Your task to perform on an android device: What's on the menu at Pizza Hut? Image 0: 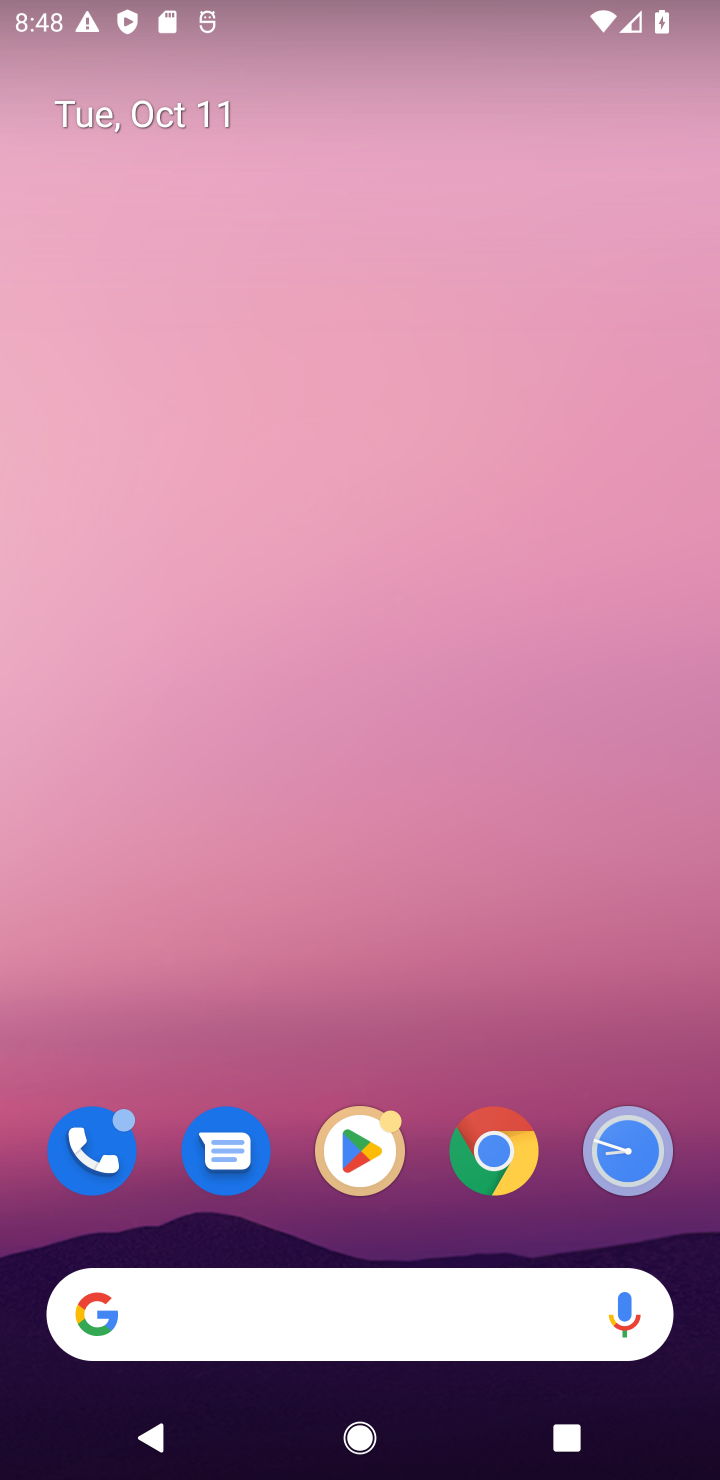
Step 0: click (513, 1106)
Your task to perform on an android device: What's on the menu at Pizza Hut? Image 1: 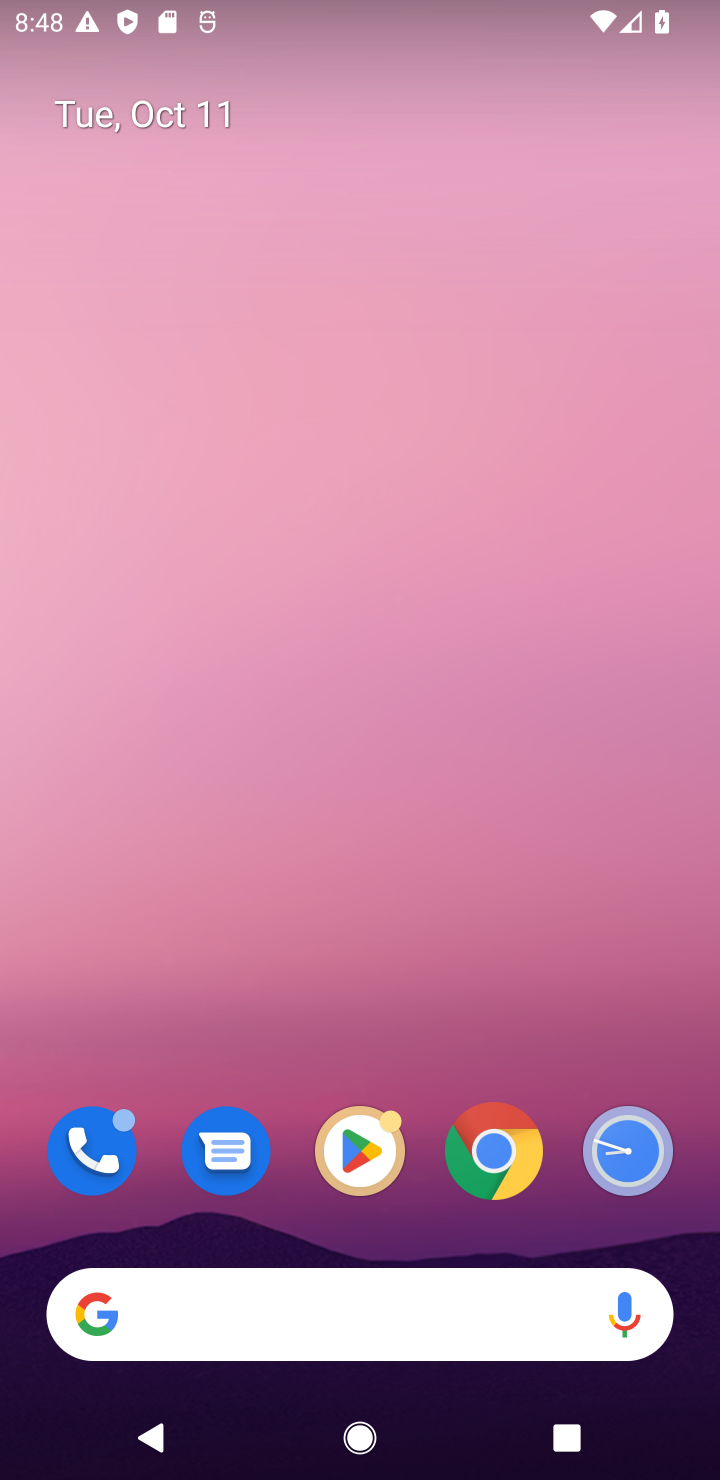
Step 1: click (488, 1150)
Your task to perform on an android device: What's on the menu at Pizza Hut? Image 2: 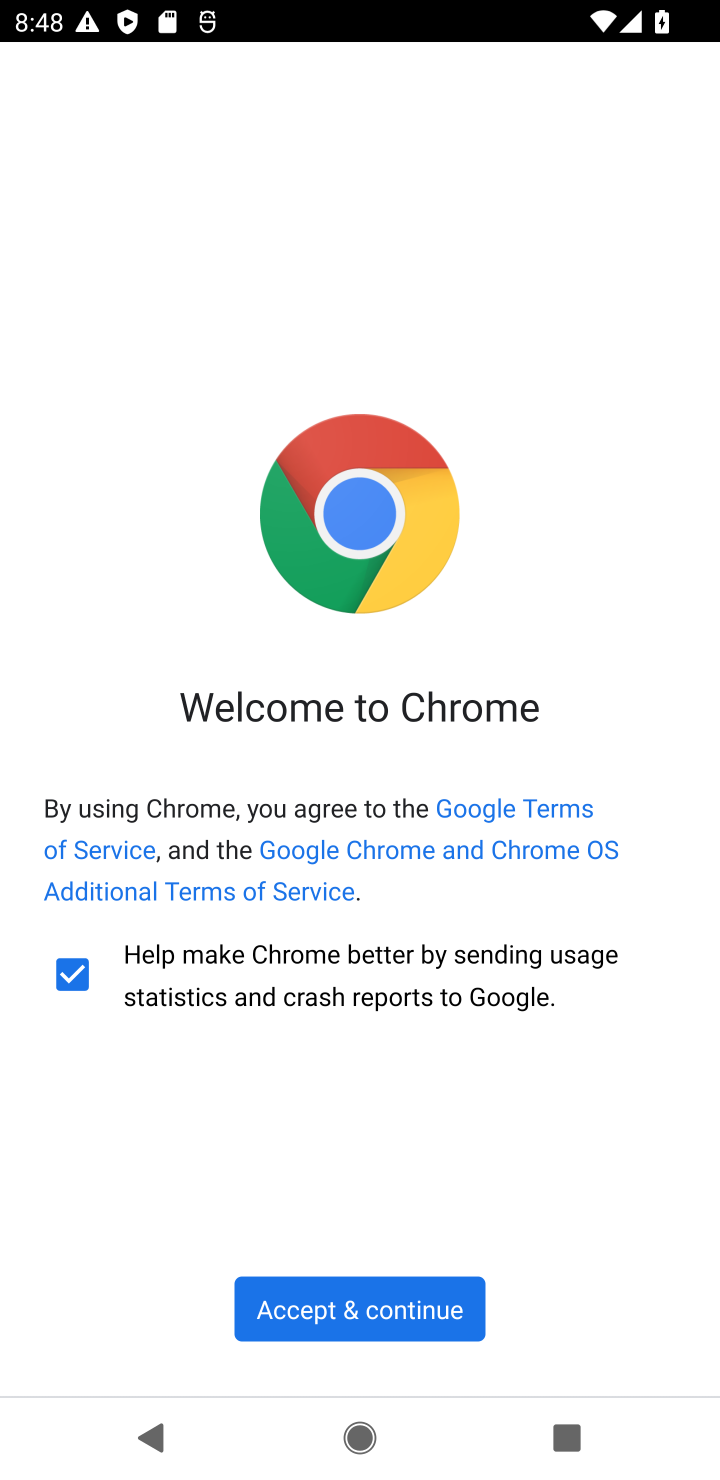
Step 2: click (414, 1334)
Your task to perform on an android device: What's on the menu at Pizza Hut? Image 3: 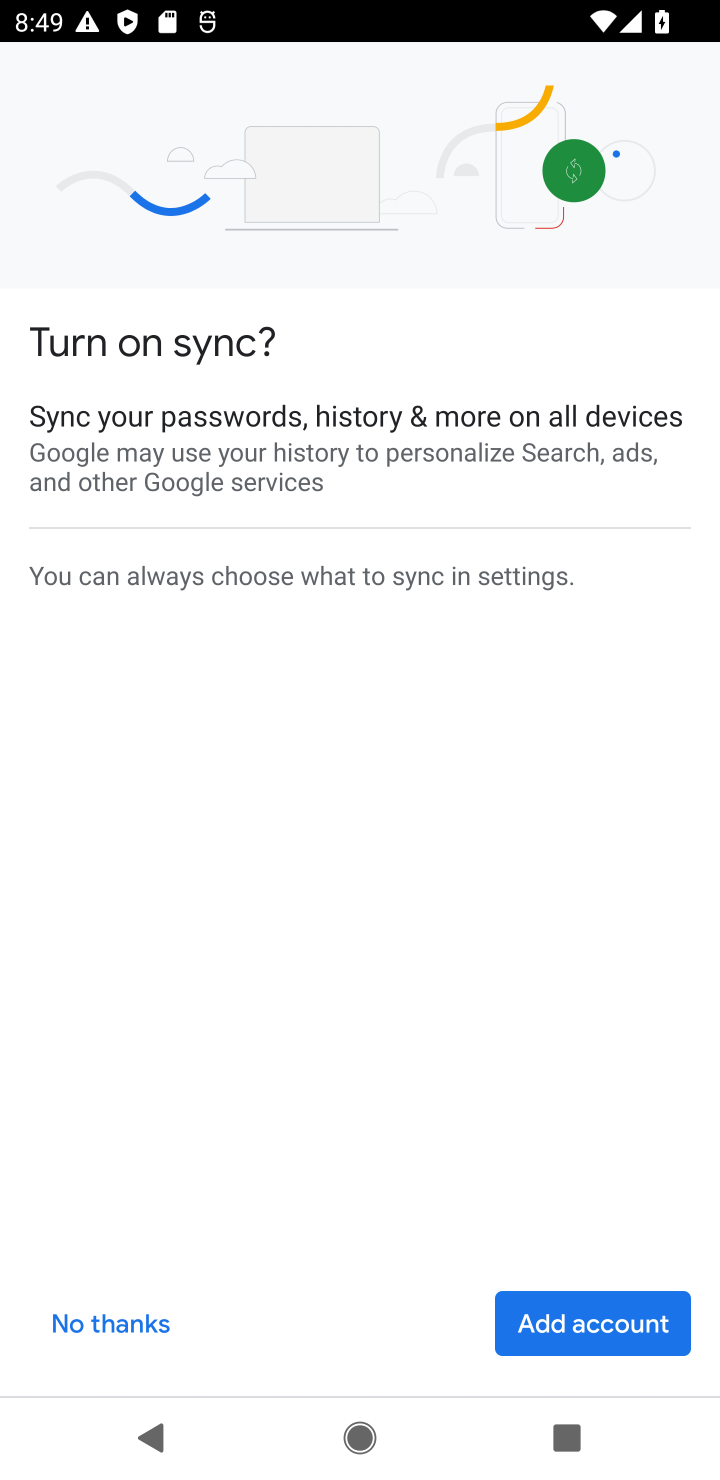
Step 3: click (140, 1329)
Your task to perform on an android device: What's on the menu at Pizza Hut? Image 4: 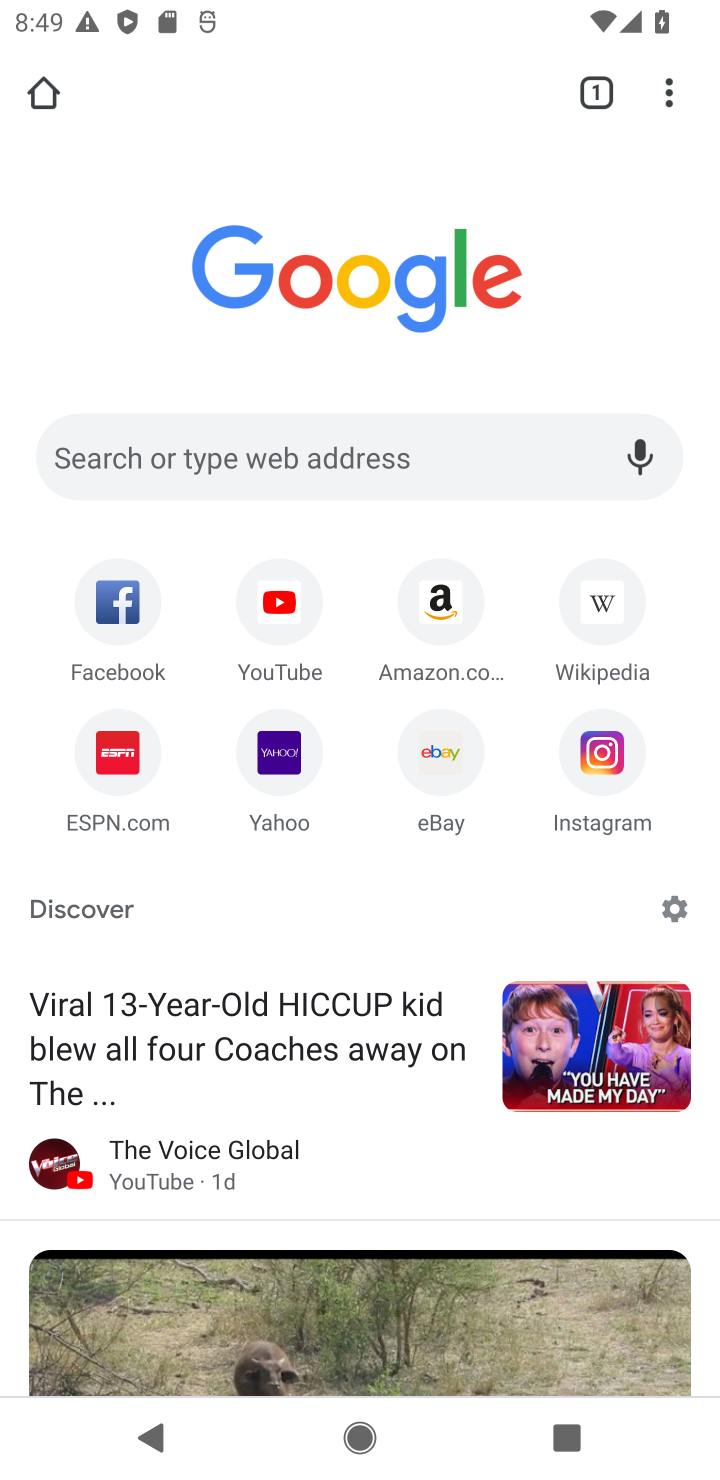
Step 4: click (391, 467)
Your task to perform on an android device: What's on the menu at Pizza Hut? Image 5: 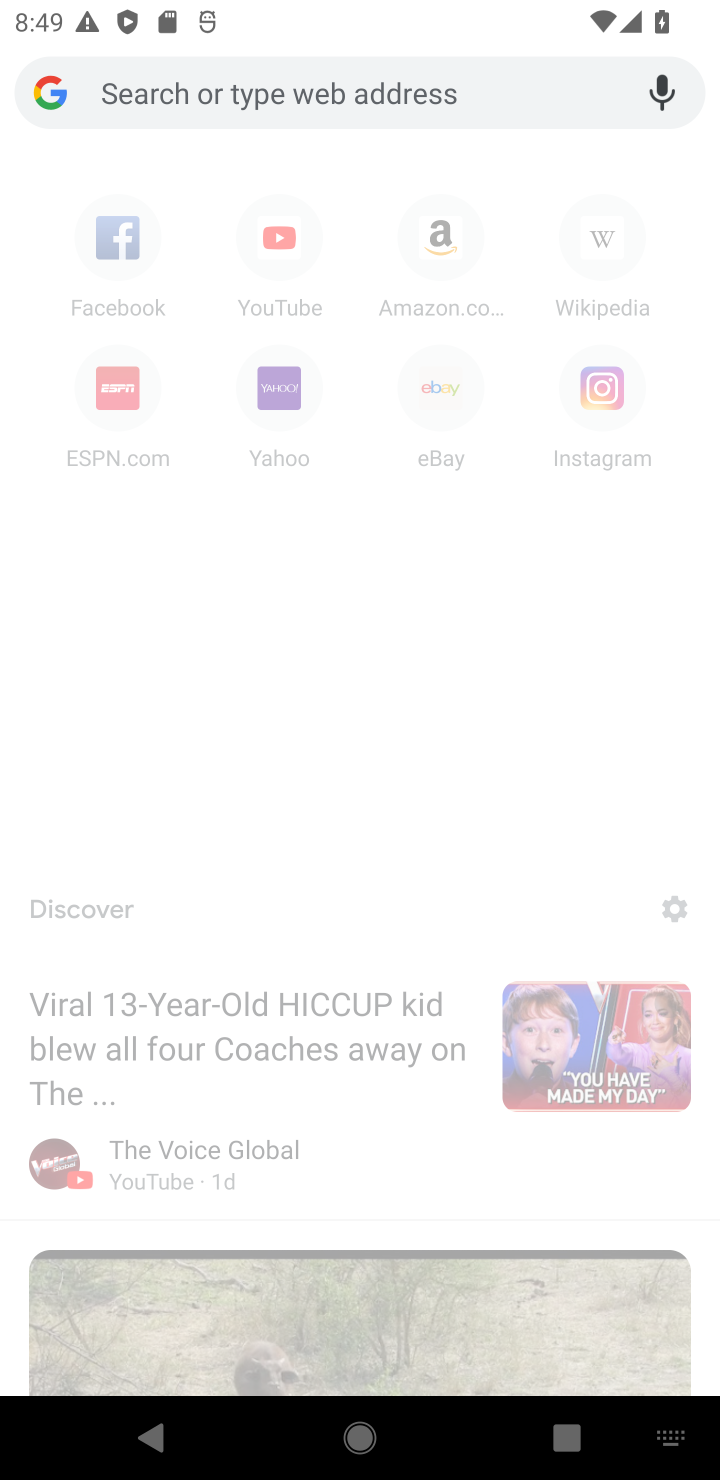
Step 5: type "pizza hut menu"
Your task to perform on an android device: What's on the menu at Pizza Hut? Image 6: 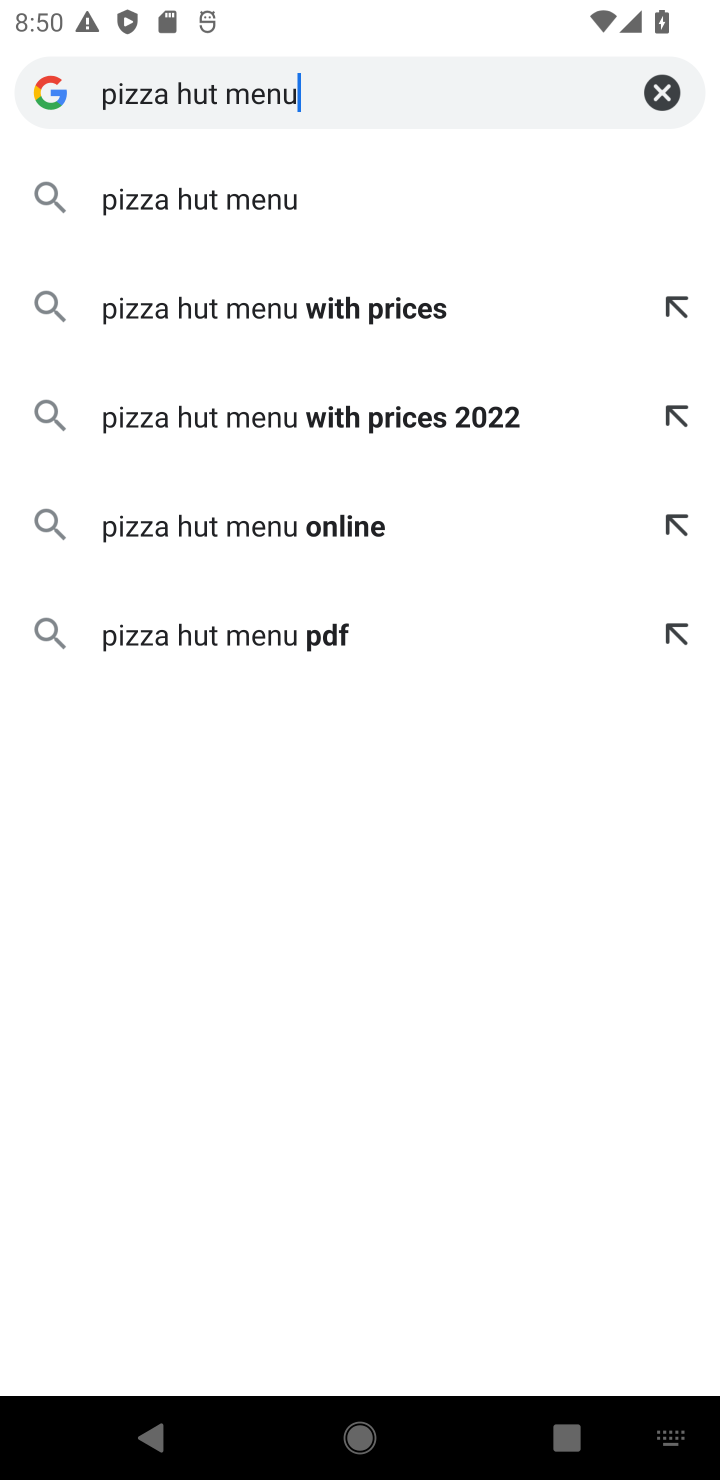
Step 6: click (234, 208)
Your task to perform on an android device: What's on the menu at Pizza Hut? Image 7: 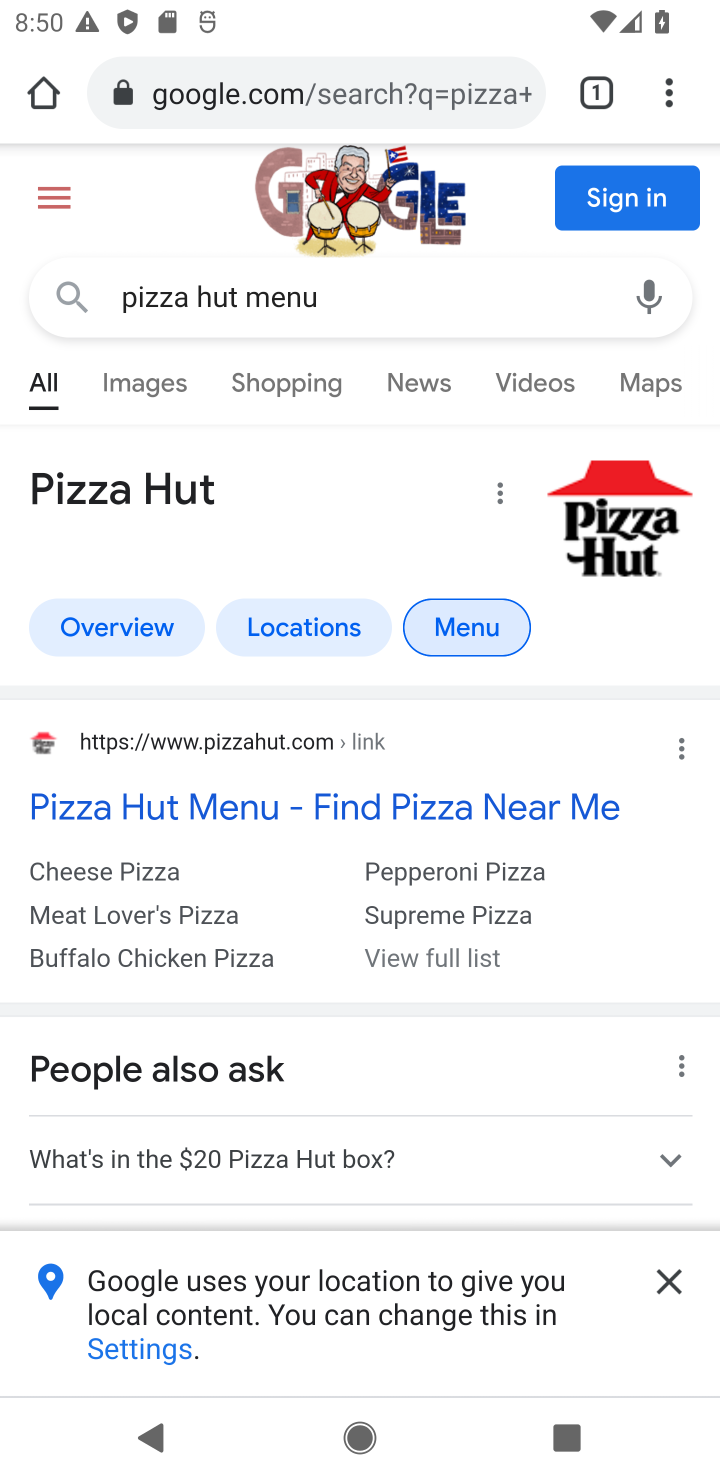
Step 7: drag from (557, 1015) to (511, 470)
Your task to perform on an android device: What's on the menu at Pizza Hut? Image 8: 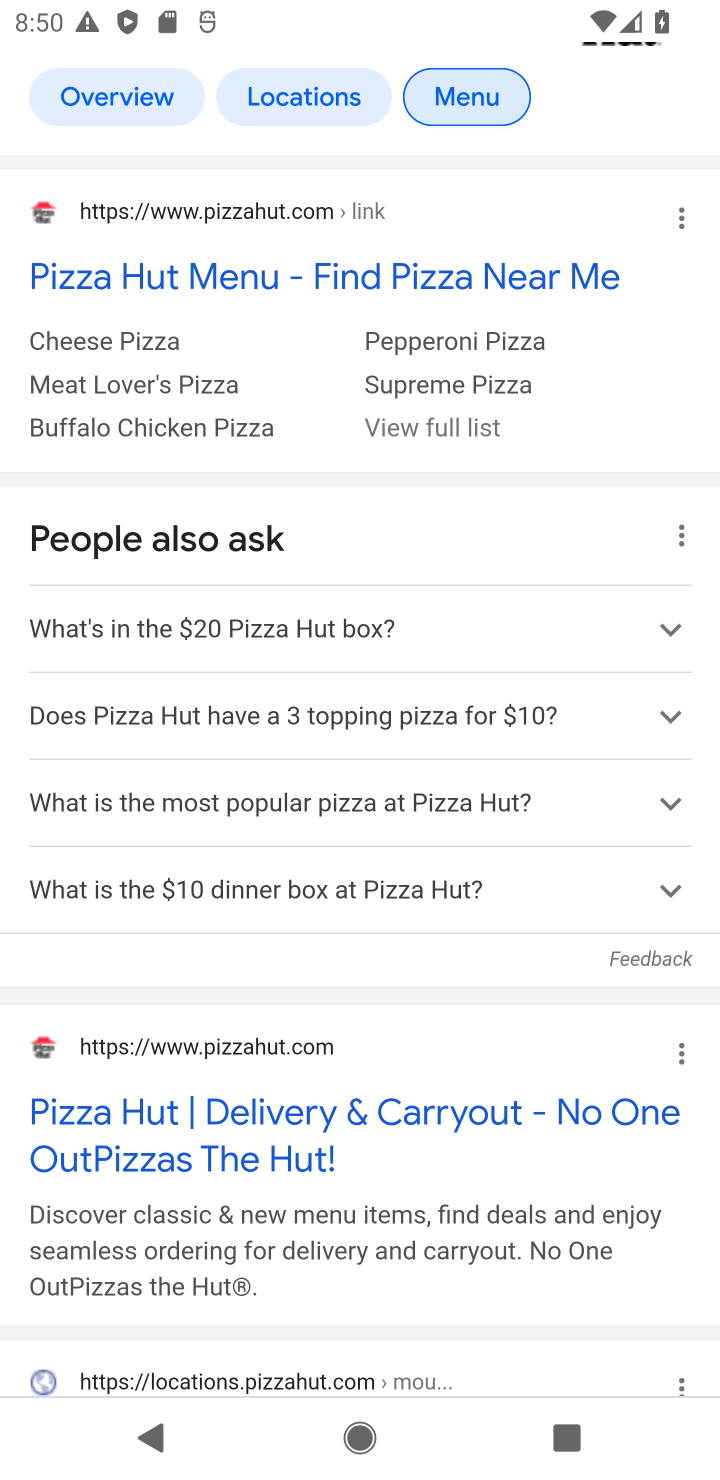
Step 8: drag from (438, 995) to (398, 478)
Your task to perform on an android device: What's on the menu at Pizza Hut? Image 9: 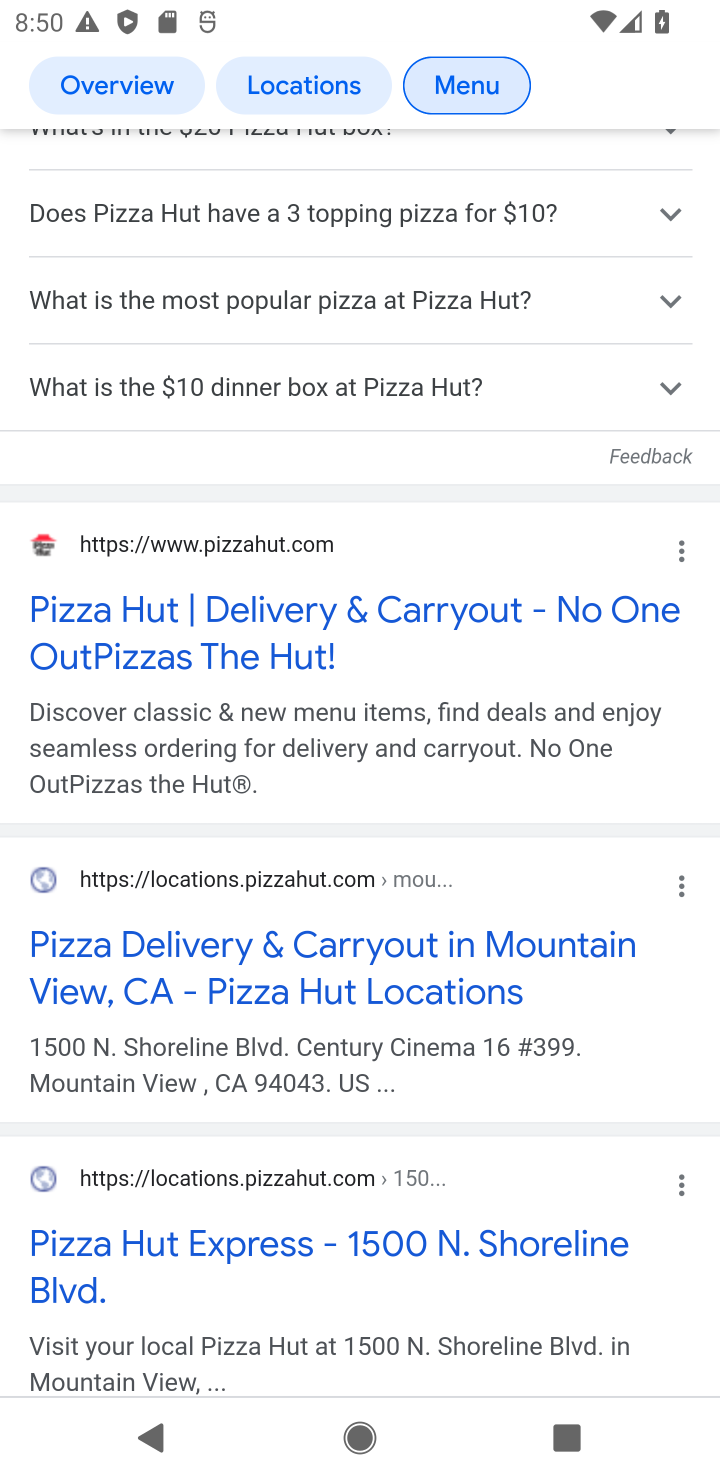
Step 9: drag from (627, 1128) to (528, 613)
Your task to perform on an android device: What's on the menu at Pizza Hut? Image 10: 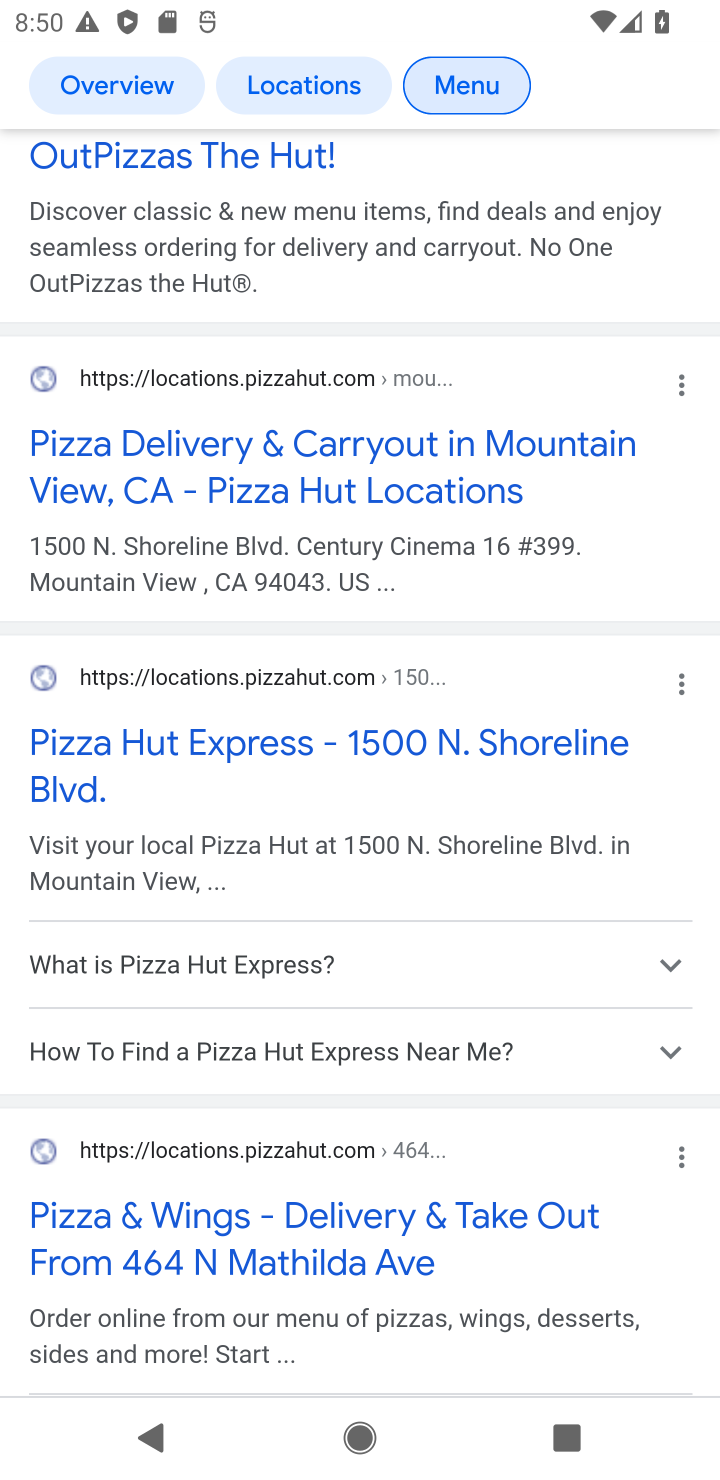
Step 10: drag from (489, 1105) to (515, 1025)
Your task to perform on an android device: What's on the menu at Pizza Hut? Image 11: 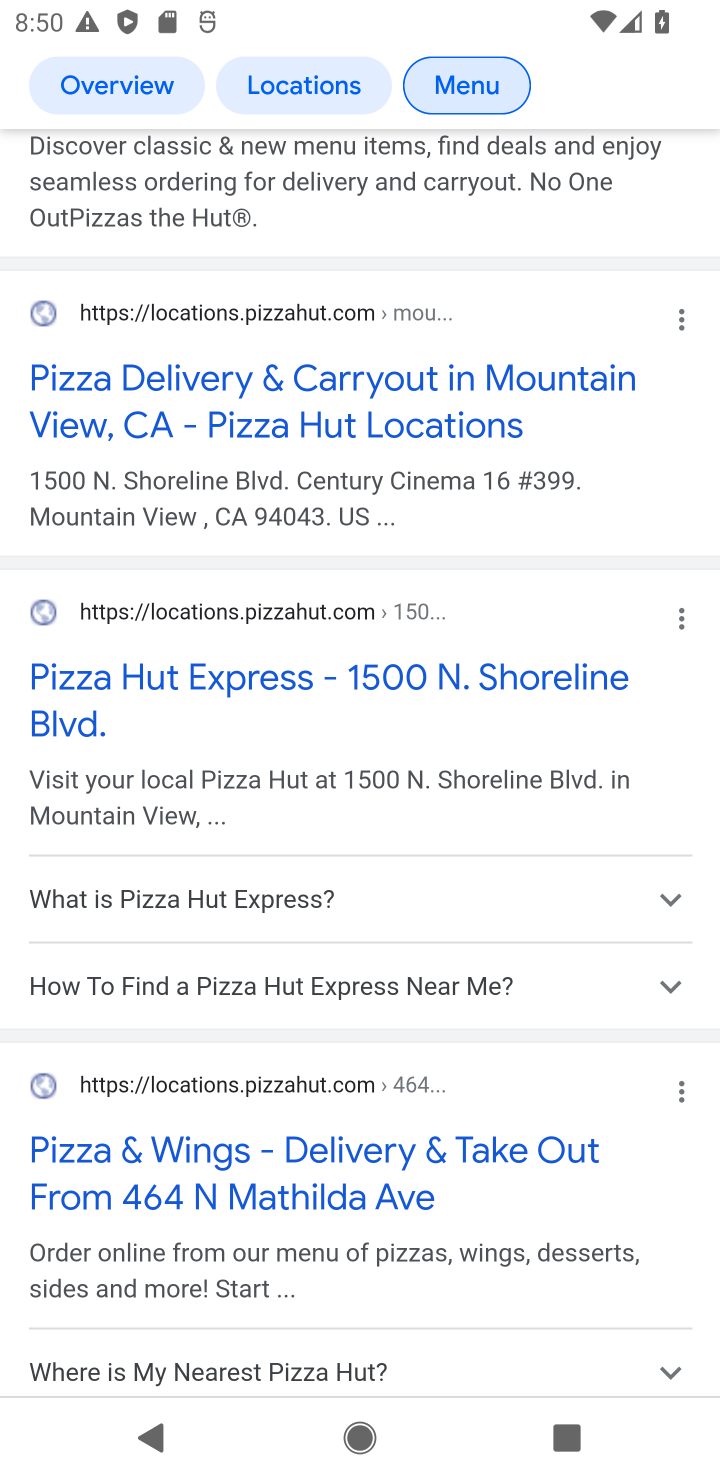
Step 11: drag from (485, 563) to (415, 1266)
Your task to perform on an android device: What's on the menu at Pizza Hut? Image 12: 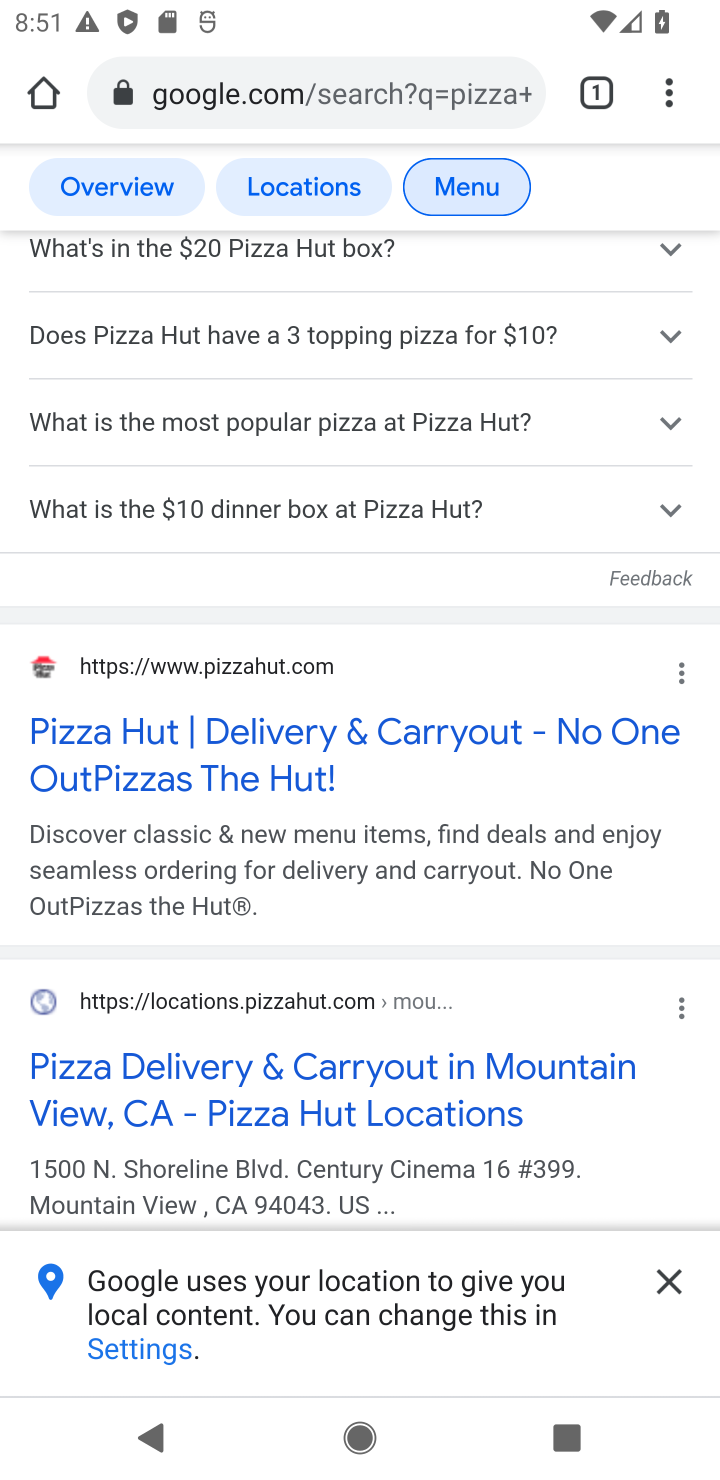
Step 12: drag from (503, 620) to (482, 1190)
Your task to perform on an android device: What's on the menu at Pizza Hut? Image 13: 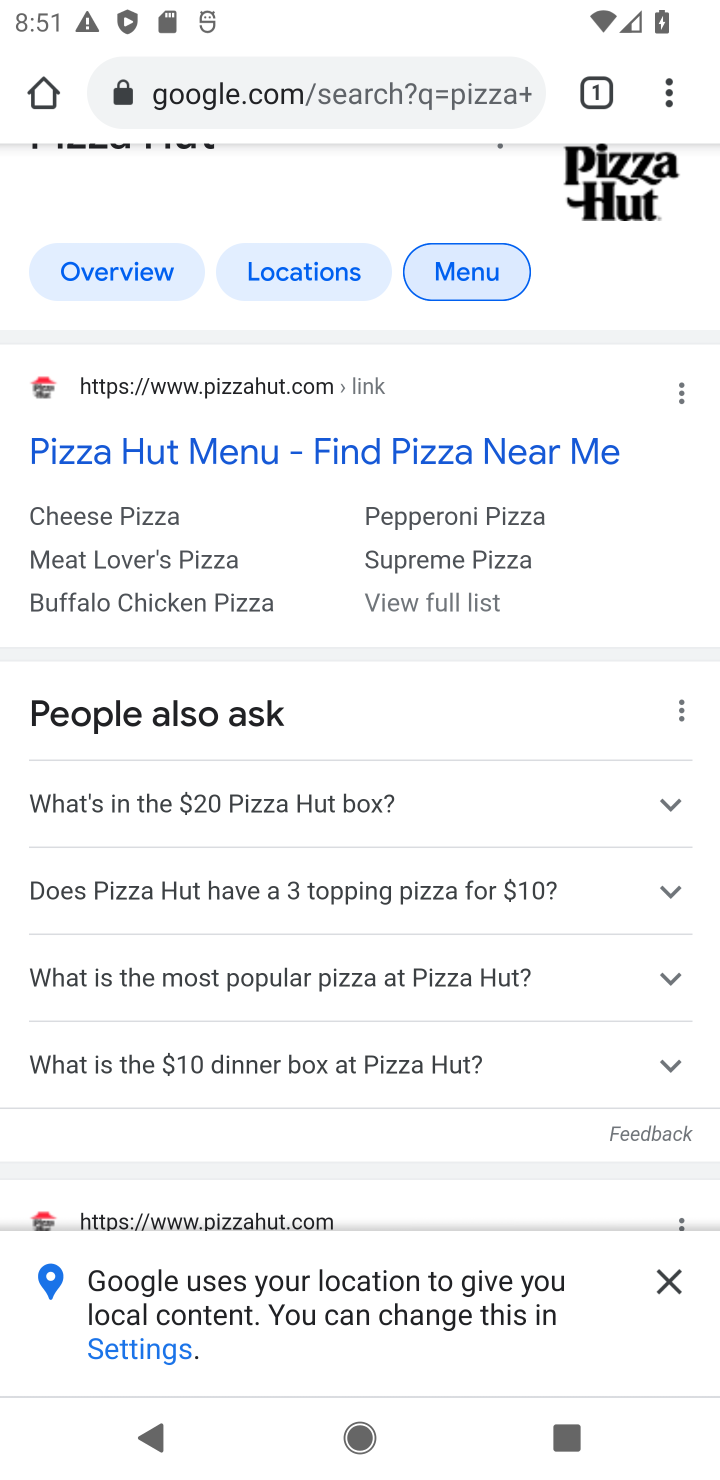
Step 13: click (476, 280)
Your task to perform on an android device: What's on the menu at Pizza Hut? Image 14: 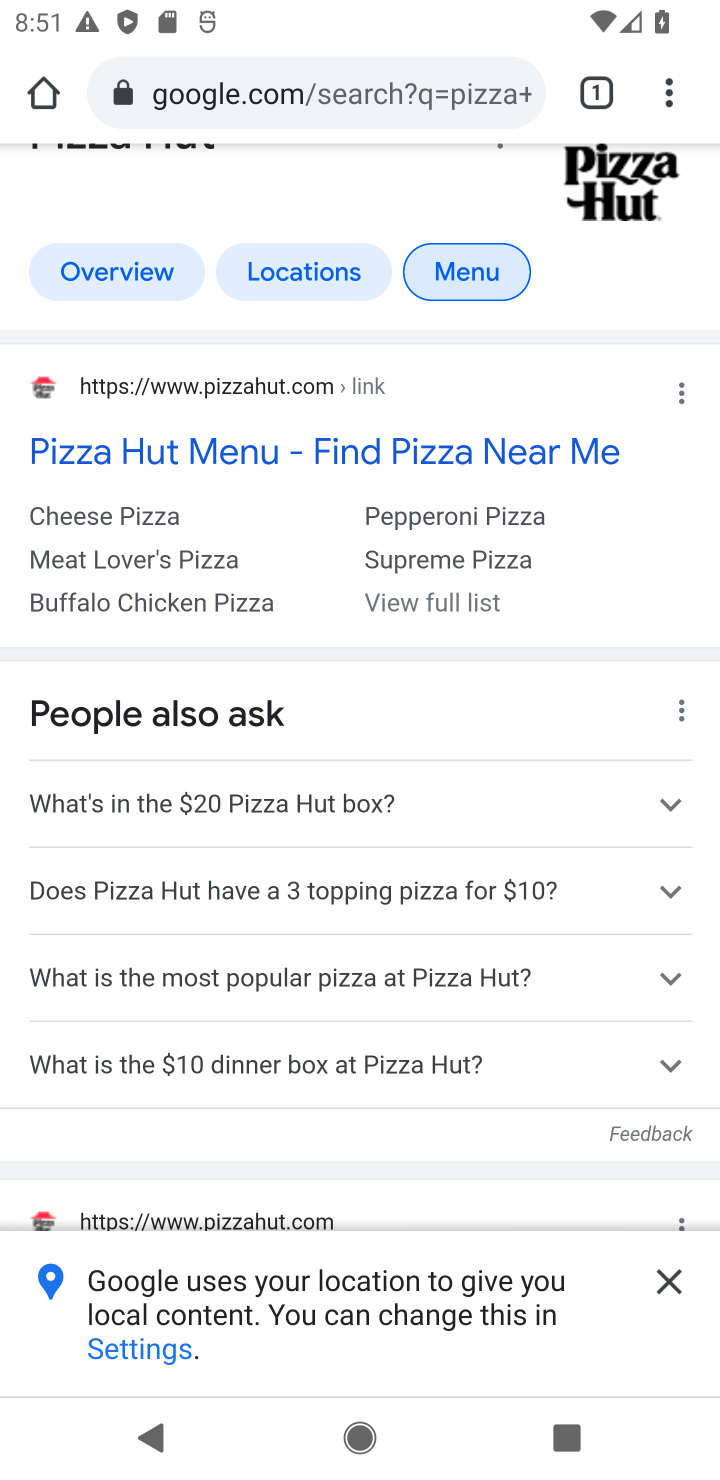
Step 14: task complete